Your task to perform on an android device: change notifications settings Image 0: 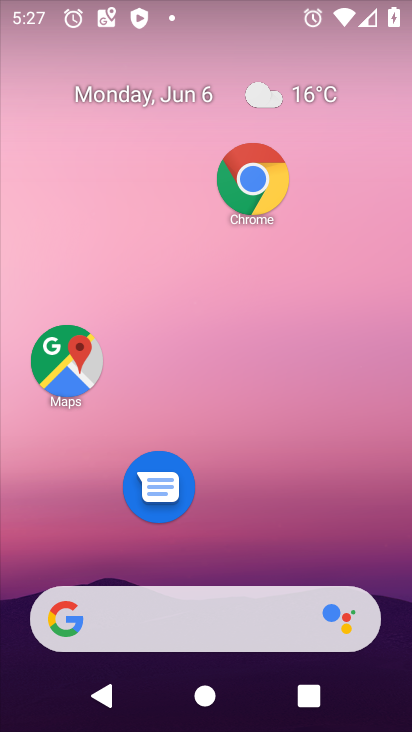
Step 0: drag from (291, 498) to (320, 31)
Your task to perform on an android device: change notifications settings Image 1: 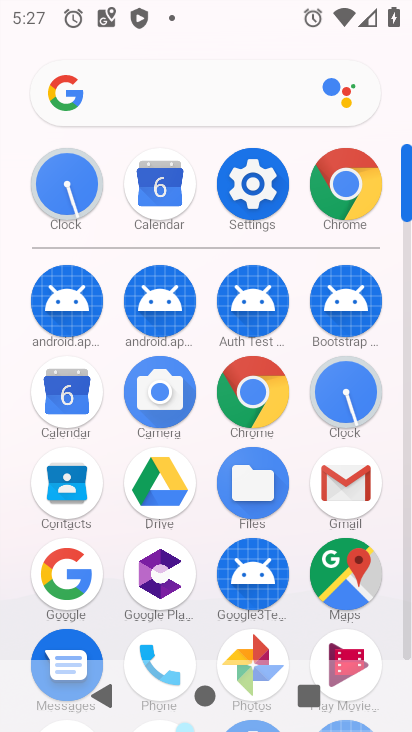
Step 1: click (260, 175)
Your task to perform on an android device: change notifications settings Image 2: 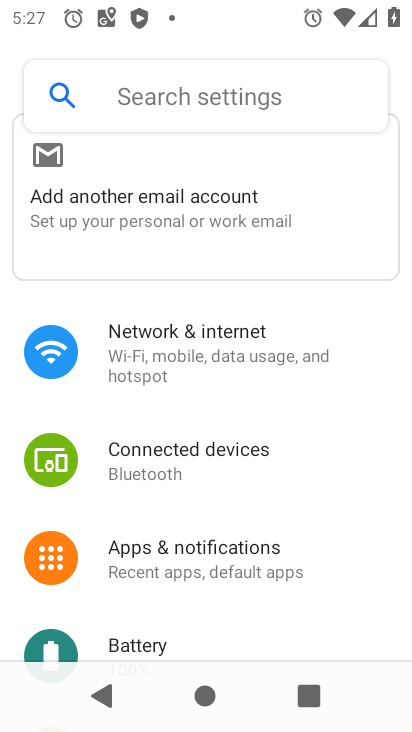
Step 2: click (254, 552)
Your task to perform on an android device: change notifications settings Image 3: 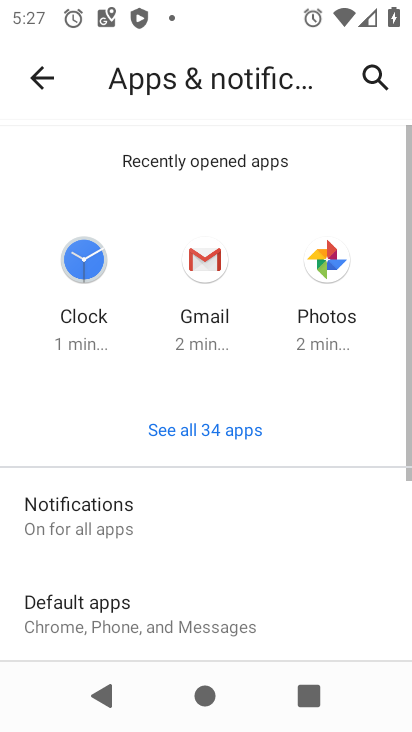
Step 3: click (253, 543)
Your task to perform on an android device: change notifications settings Image 4: 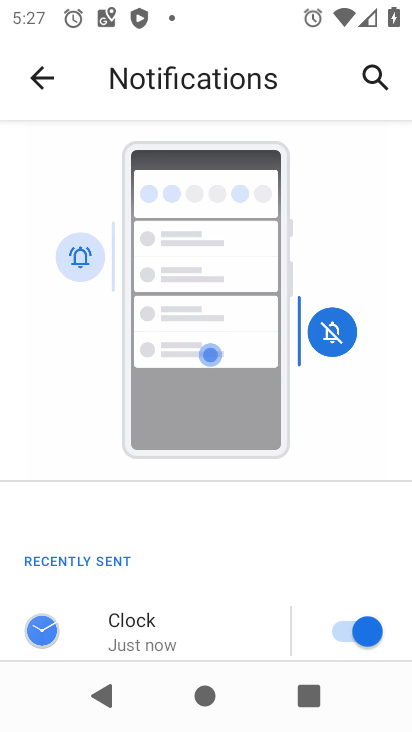
Step 4: drag from (253, 541) to (236, 46)
Your task to perform on an android device: change notifications settings Image 5: 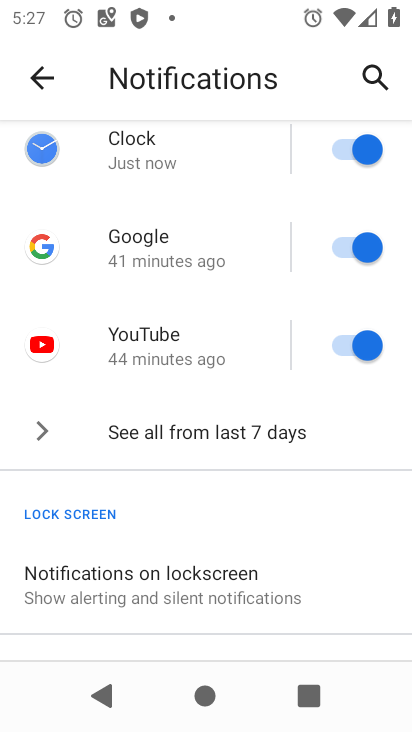
Step 5: click (234, 429)
Your task to perform on an android device: change notifications settings Image 6: 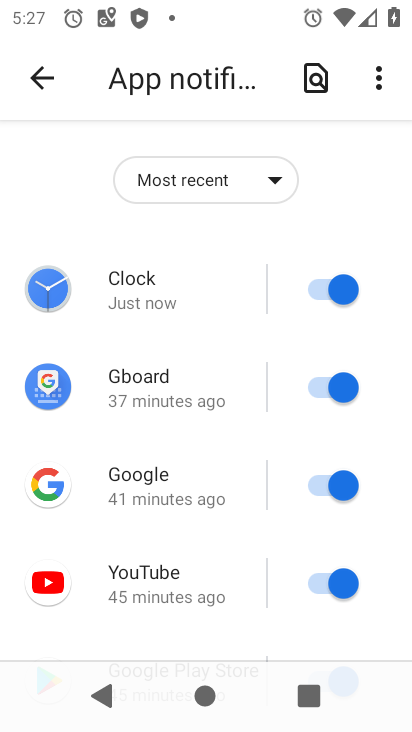
Step 6: click (327, 293)
Your task to perform on an android device: change notifications settings Image 7: 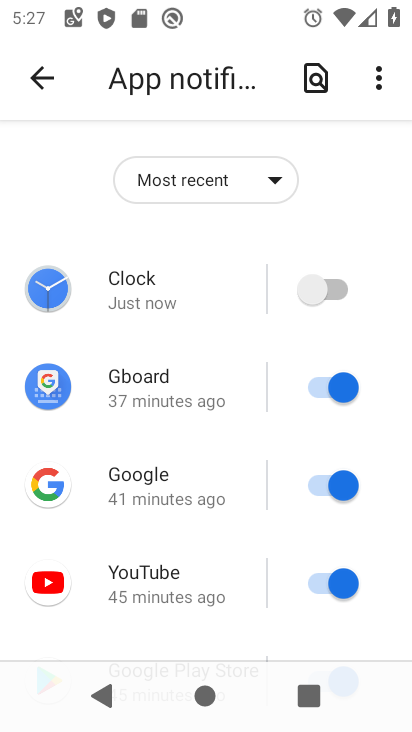
Step 7: click (335, 385)
Your task to perform on an android device: change notifications settings Image 8: 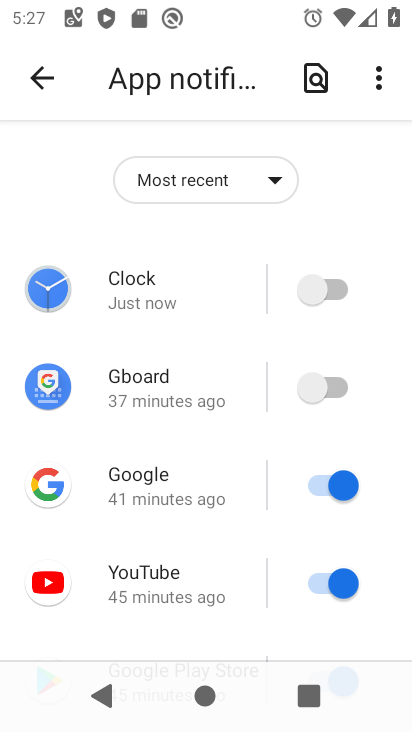
Step 8: click (342, 487)
Your task to perform on an android device: change notifications settings Image 9: 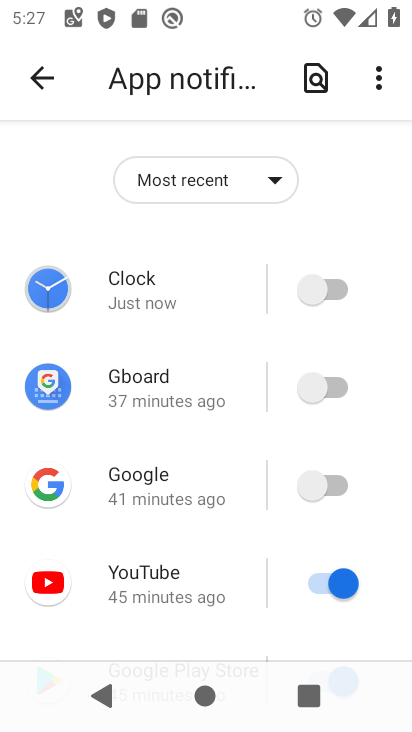
Step 9: drag from (198, 551) to (203, 84)
Your task to perform on an android device: change notifications settings Image 10: 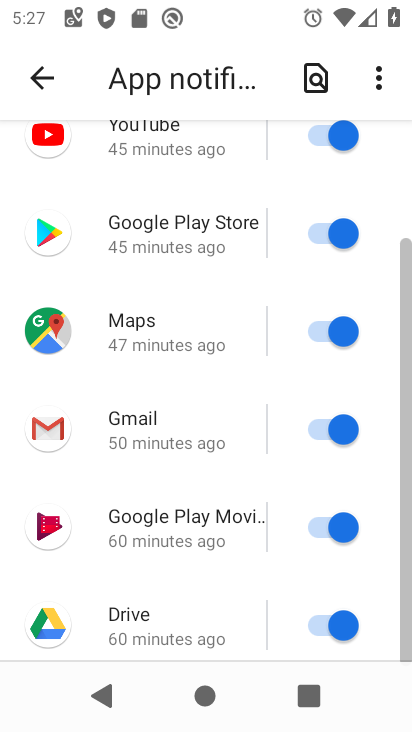
Step 10: click (323, 129)
Your task to perform on an android device: change notifications settings Image 11: 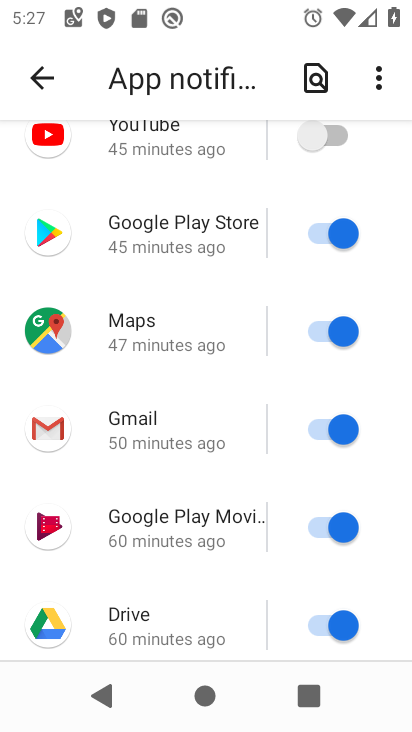
Step 11: click (327, 224)
Your task to perform on an android device: change notifications settings Image 12: 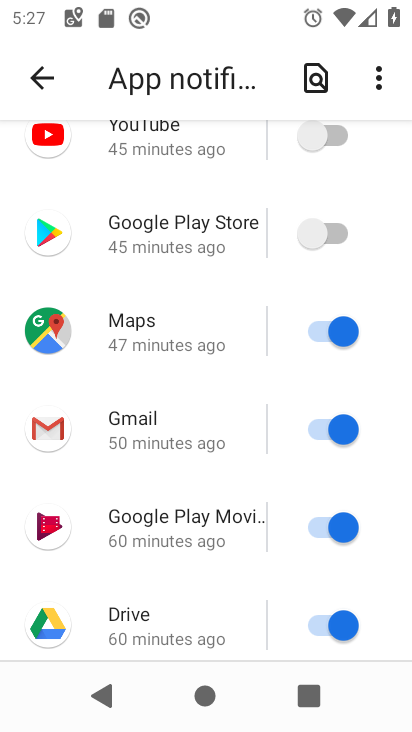
Step 12: click (332, 322)
Your task to perform on an android device: change notifications settings Image 13: 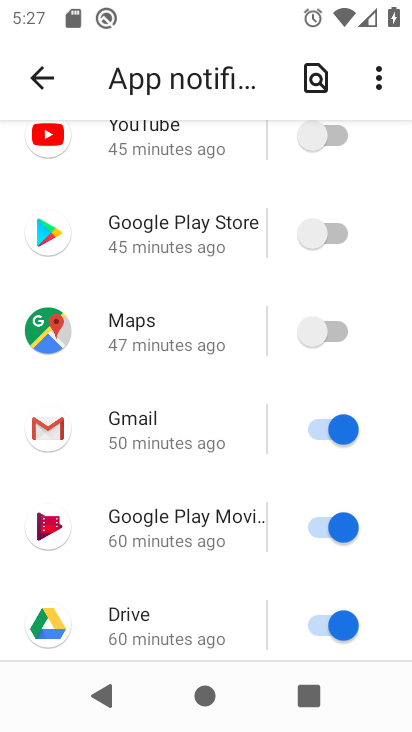
Step 13: click (329, 421)
Your task to perform on an android device: change notifications settings Image 14: 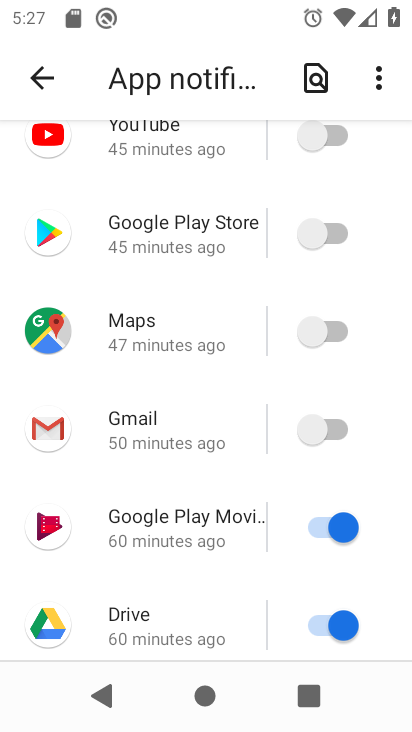
Step 14: click (330, 512)
Your task to perform on an android device: change notifications settings Image 15: 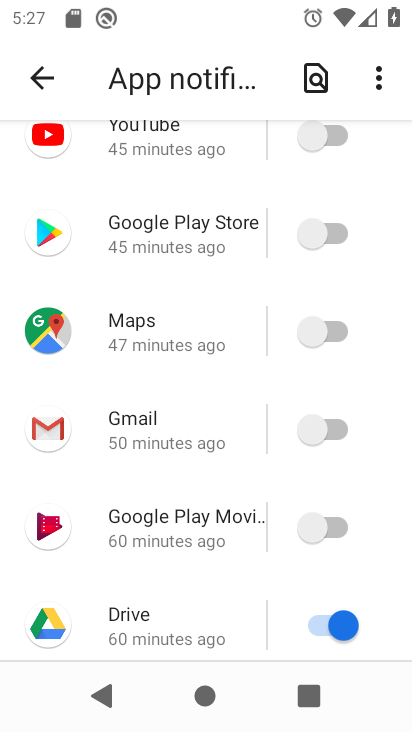
Step 15: drag from (216, 557) to (250, 200)
Your task to perform on an android device: change notifications settings Image 16: 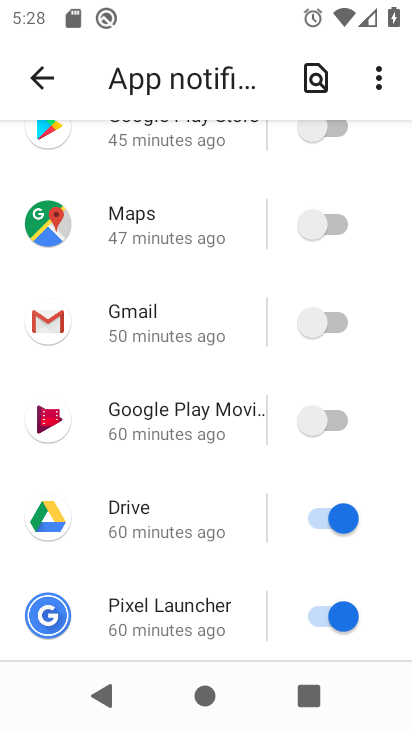
Step 16: click (329, 511)
Your task to perform on an android device: change notifications settings Image 17: 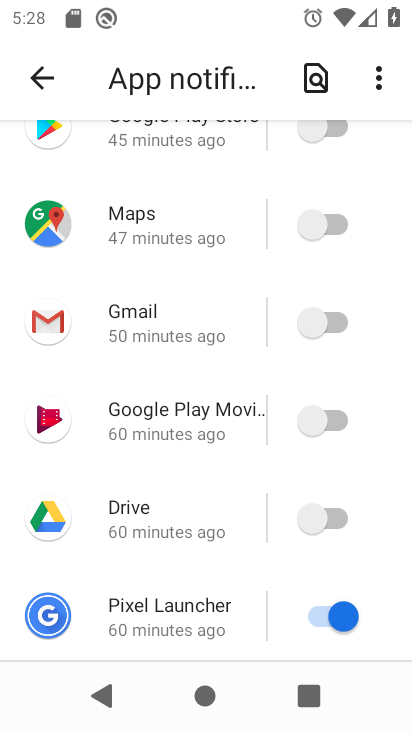
Step 17: click (337, 611)
Your task to perform on an android device: change notifications settings Image 18: 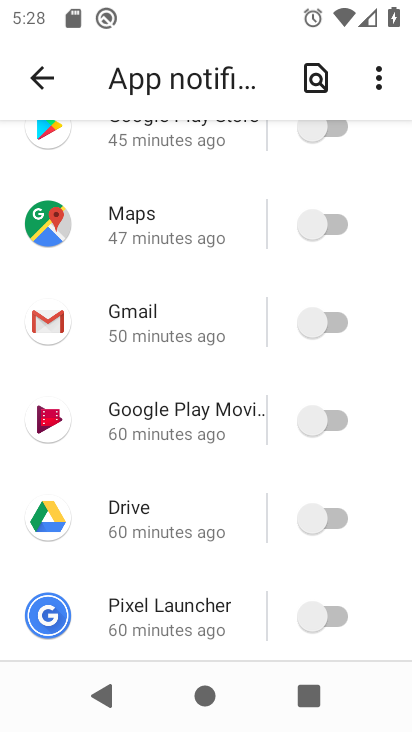
Step 18: task complete